Your task to perform on an android device: Open network settings Image 0: 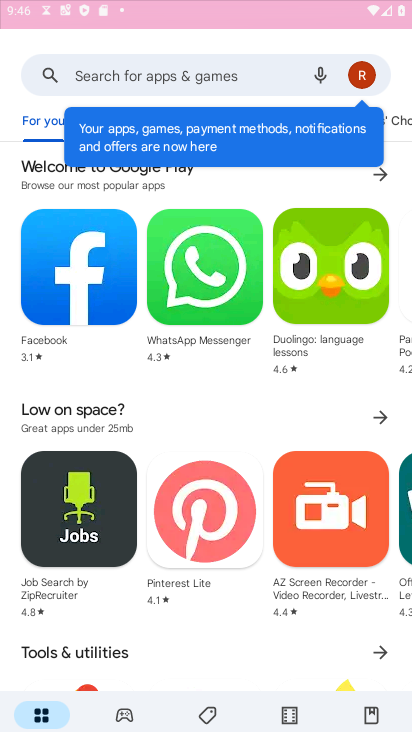
Step 0: click (128, 630)
Your task to perform on an android device: Open network settings Image 1: 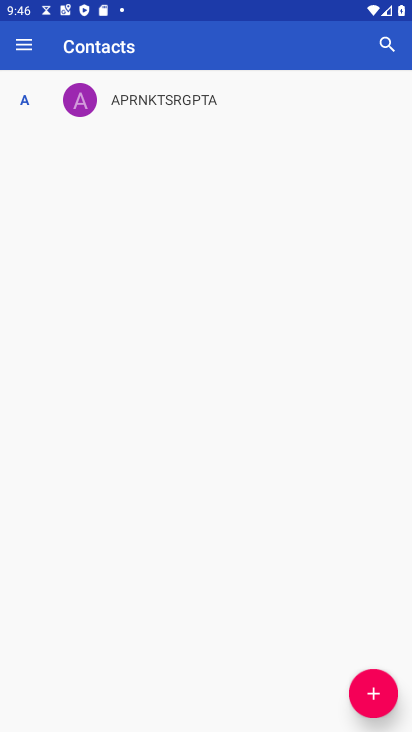
Step 1: press home button
Your task to perform on an android device: Open network settings Image 2: 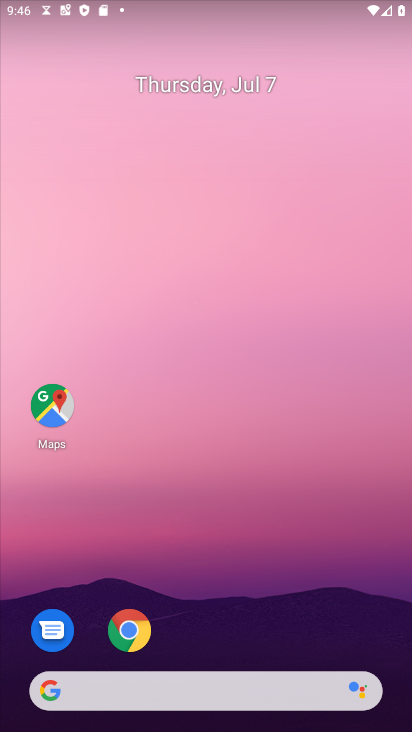
Step 2: drag from (154, 676) to (171, 240)
Your task to perform on an android device: Open network settings Image 3: 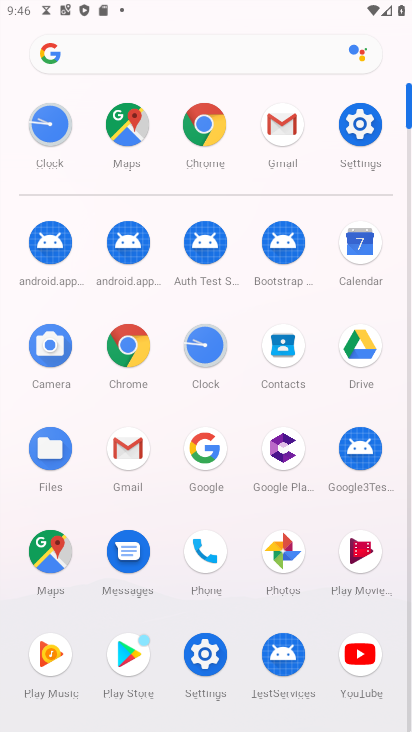
Step 3: click (364, 137)
Your task to perform on an android device: Open network settings Image 4: 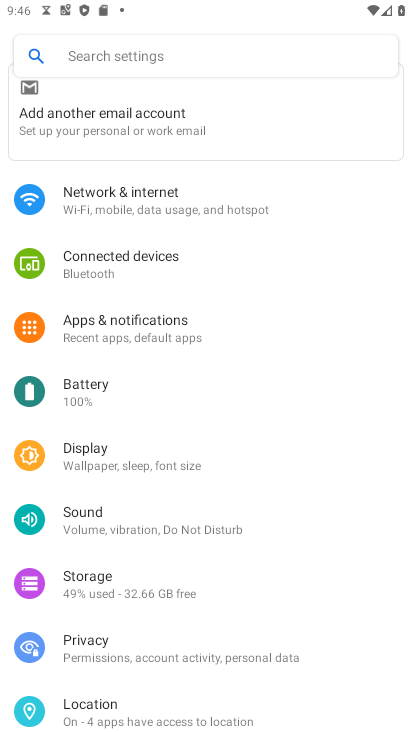
Step 4: click (160, 197)
Your task to perform on an android device: Open network settings Image 5: 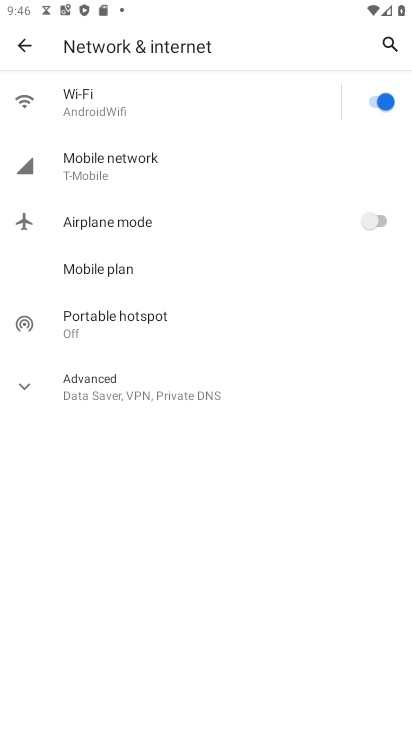
Step 5: click (108, 162)
Your task to perform on an android device: Open network settings Image 6: 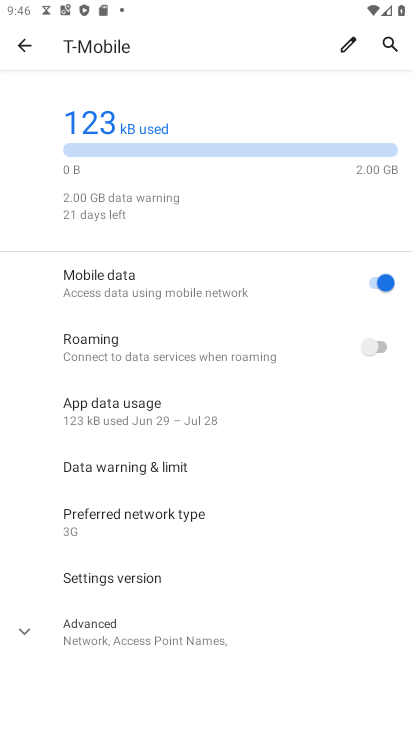
Step 6: click (124, 630)
Your task to perform on an android device: Open network settings Image 7: 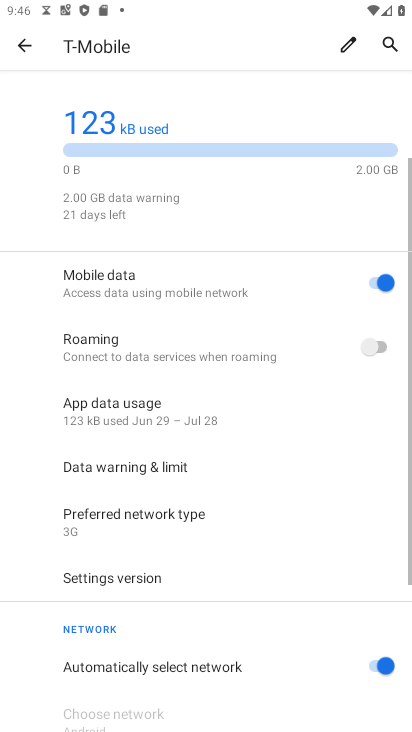
Step 7: task complete